Your task to perform on an android device: turn on location history Image 0: 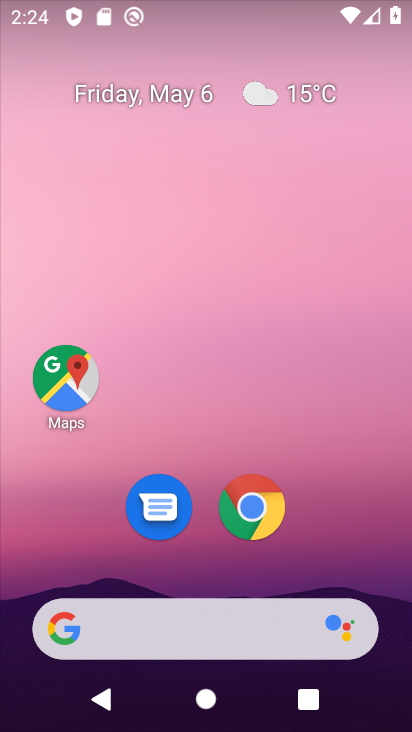
Step 0: drag from (382, 566) to (380, 197)
Your task to perform on an android device: turn on location history Image 1: 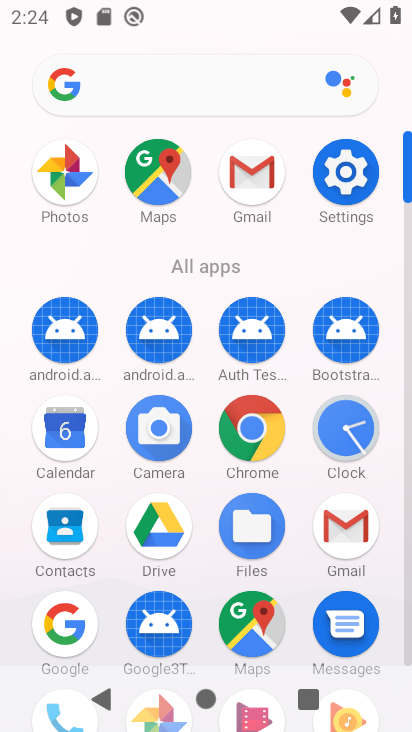
Step 1: click (357, 194)
Your task to perform on an android device: turn on location history Image 2: 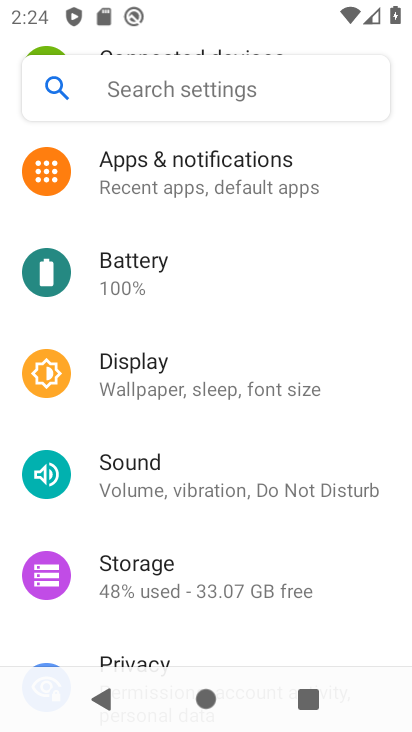
Step 2: drag from (350, 207) to (327, 457)
Your task to perform on an android device: turn on location history Image 3: 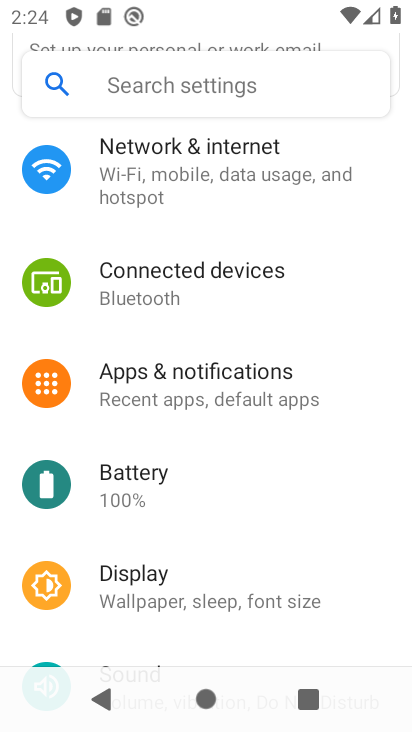
Step 3: drag from (265, 518) to (343, 197)
Your task to perform on an android device: turn on location history Image 4: 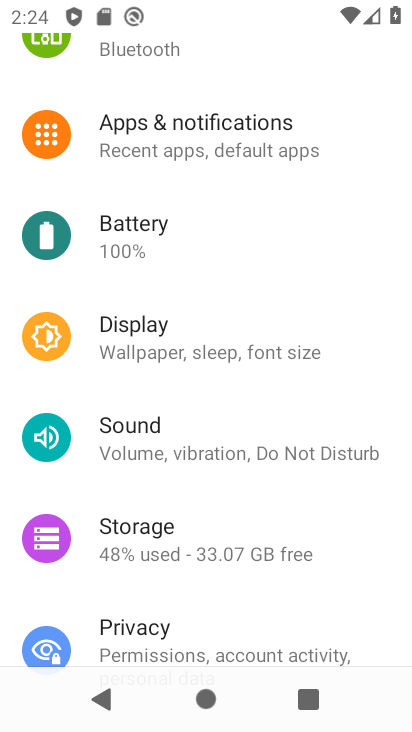
Step 4: drag from (311, 536) to (351, 210)
Your task to perform on an android device: turn on location history Image 5: 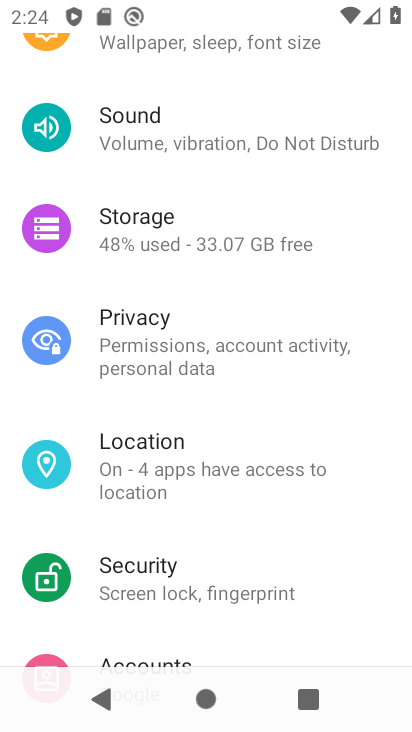
Step 5: click (262, 461)
Your task to perform on an android device: turn on location history Image 6: 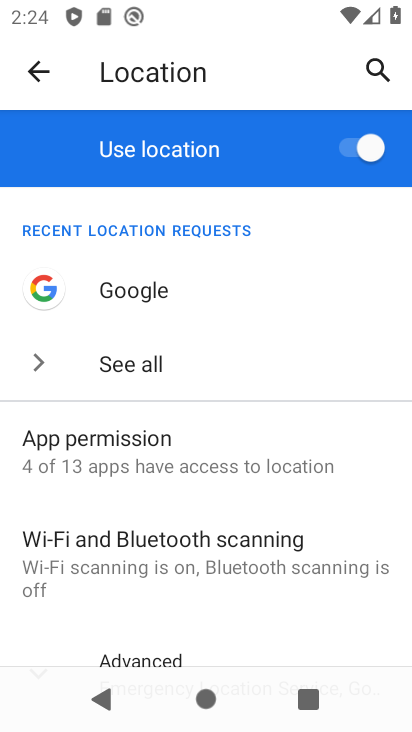
Step 6: drag from (334, 504) to (337, 306)
Your task to perform on an android device: turn on location history Image 7: 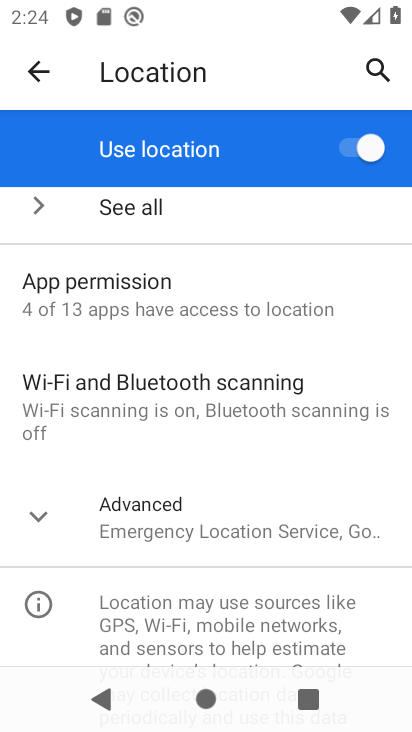
Step 7: click (233, 536)
Your task to perform on an android device: turn on location history Image 8: 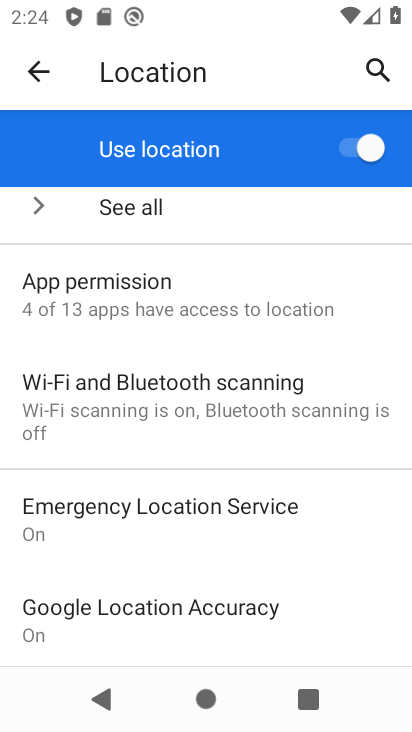
Step 8: drag from (290, 576) to (297, 319)
Your task to perform on an android device: turn on location history Image 9: 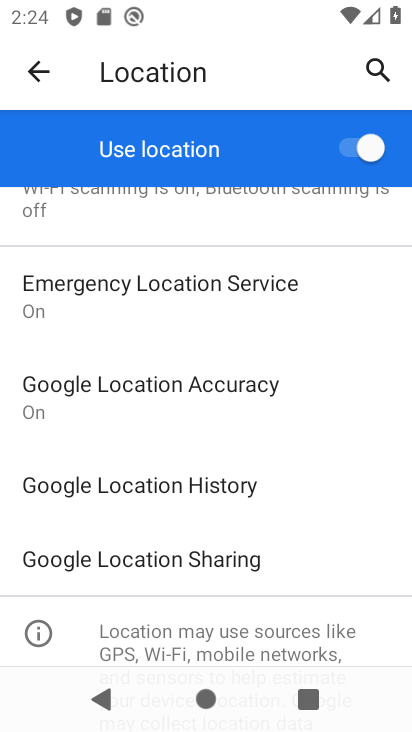
Step 9: click (125, 475)
Your task to perform on an android device: turn on location history Image 10: 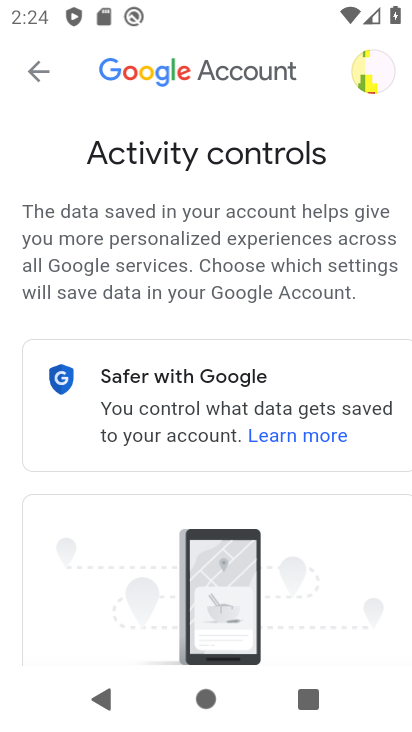
Step 10: task complete